Your task to perform on an android device: empty trash in google photos Image 0: 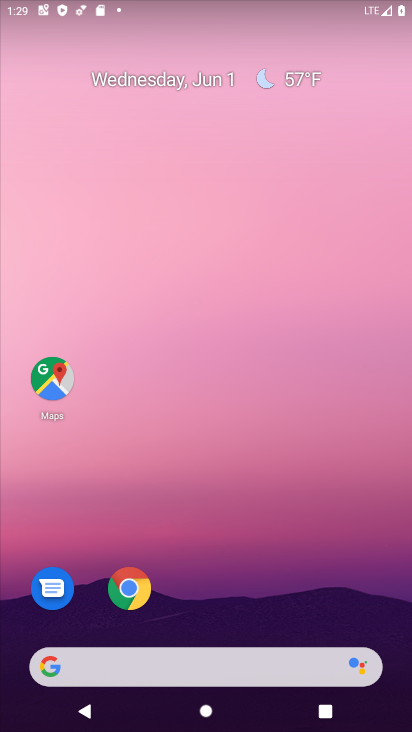
Step 0: drag from (247, 404) to (159, 15)
Your task to perform on an android device: empty trash in google photos Image 1: 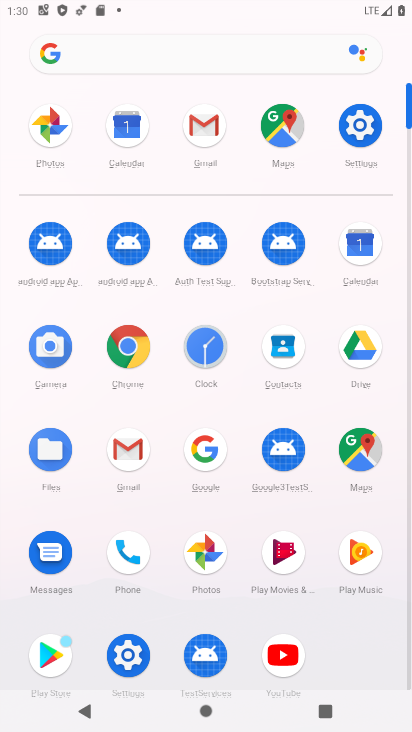
Step 1: click (62, 113)
Your task to perform on an android device: empty trash in google photos Image 2: 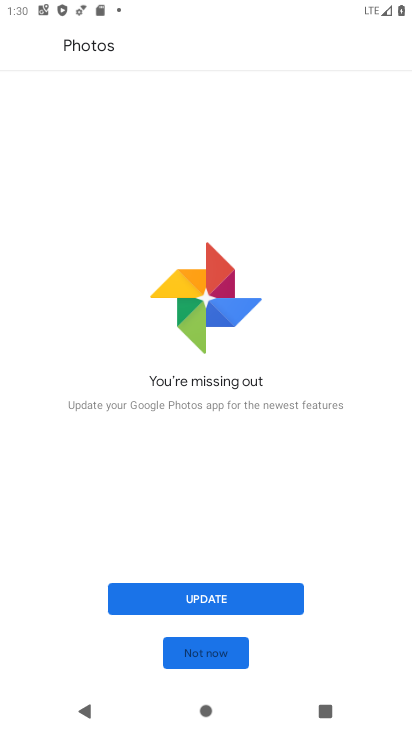
Step 2: click (229, 592)
Your task to perform on an android device: empty trash in google photos Image 3: 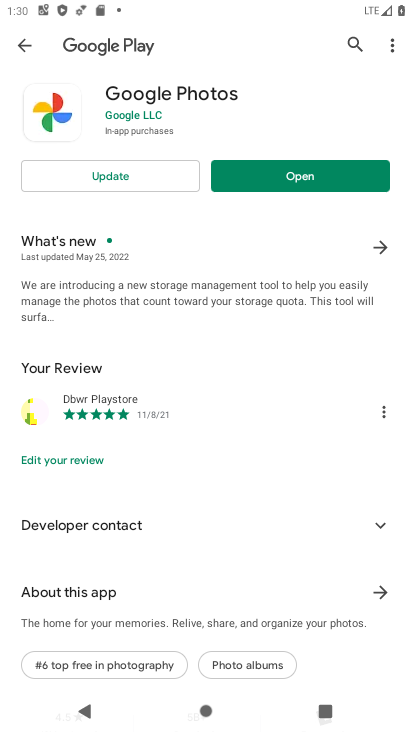
Step 3: click (114, 174)
Your task to perform on an android device: empty trash in google photos Image 4: 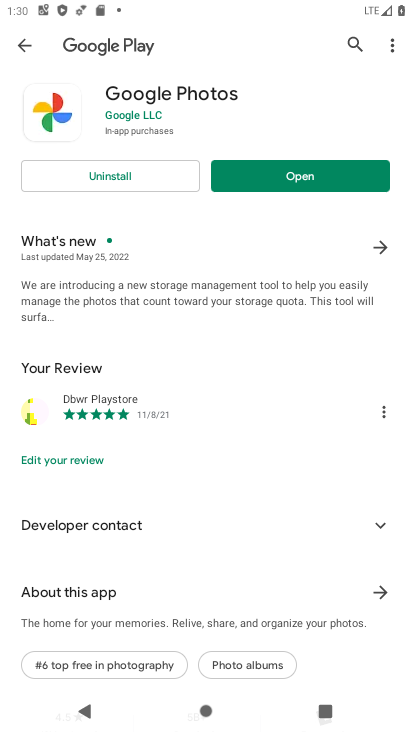
Step 4: click (299, 180)
Your task to perform on an android device: empty trash in google photos Image 5: 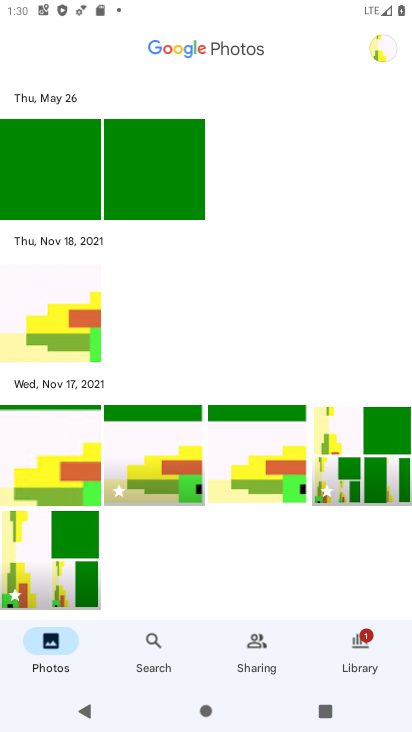
Step 5: click (359, 645)
Your task to perform on an android device: empty trash in google photos Image 6: 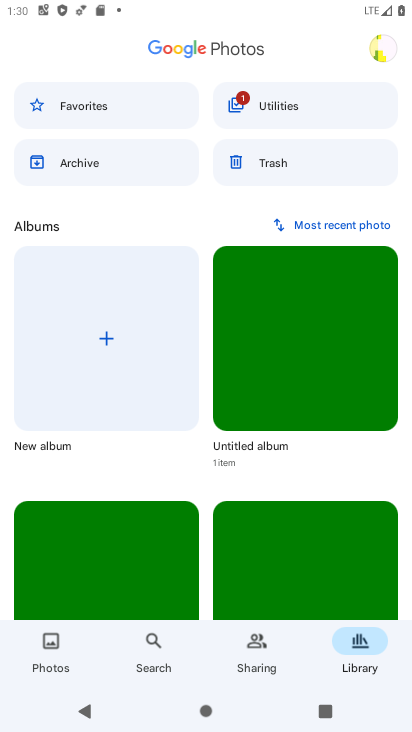
Step 6: click (290, 162)
Your task to perform on an android device: empty trash in google photos Image 7: 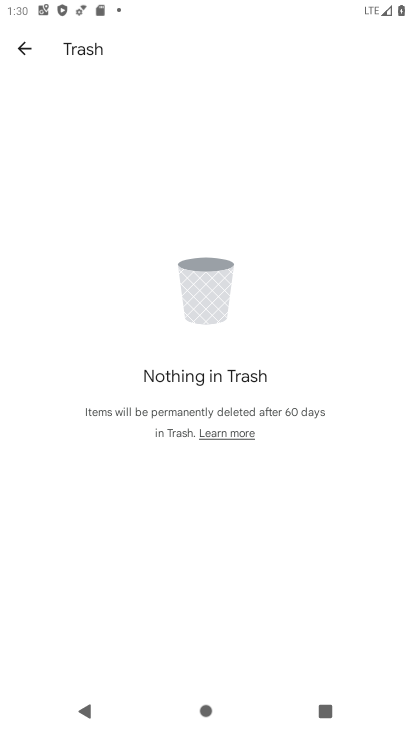
Step 7: task complete